Your task to perform on an android device: Go to calendar. Show me events next week Image 0: 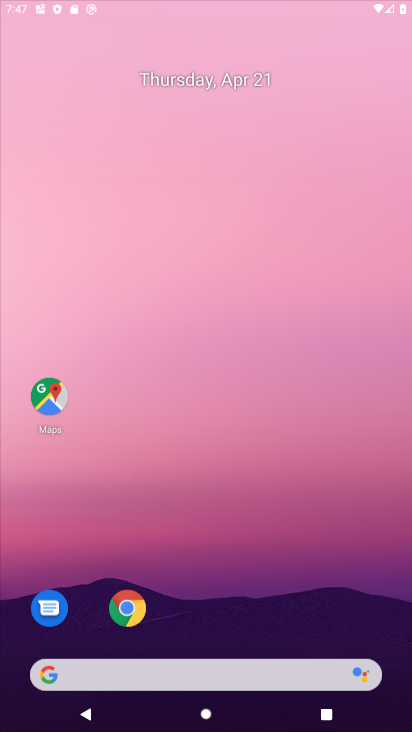
Step 0: drag from (372, 467) to (285, 123)
Your task to perform on an android device: Go to calendar. Show me events next week Image 1: 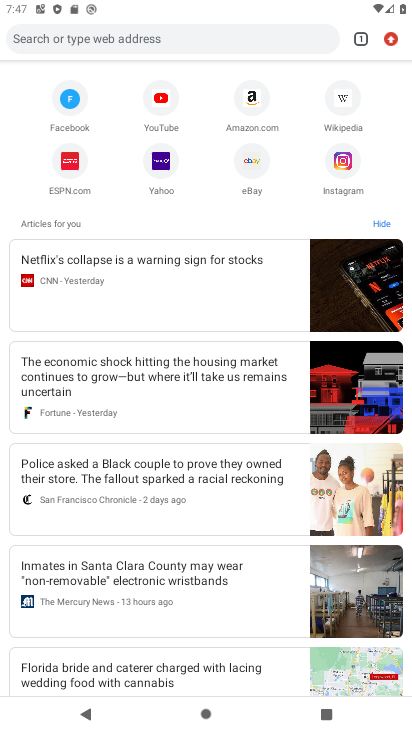
Step 1: press home button
Your task to perform on an android device: Go to calendar. Show me events next week Image 2: 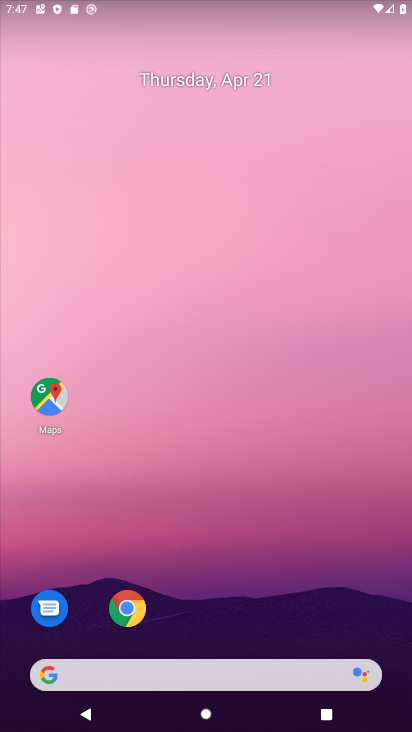
Step 2: click (204, 47)
Your task to perform on an android device: Go to calendar. Show me events next week Image 3: 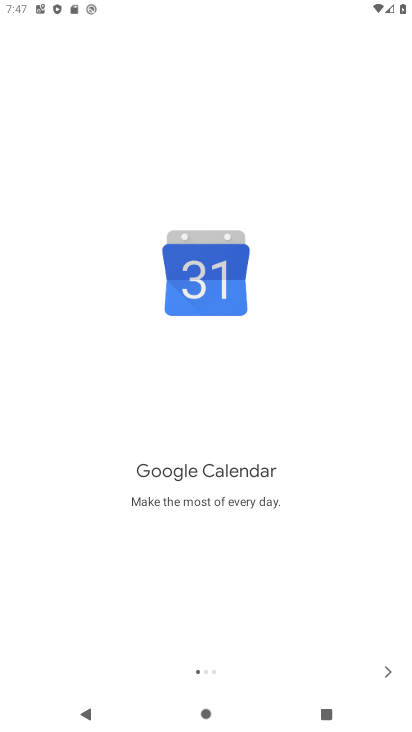
Step 3: click (385, 666)
Your task to perform on an android device: Go to calendar. Show me events next week Image 4: 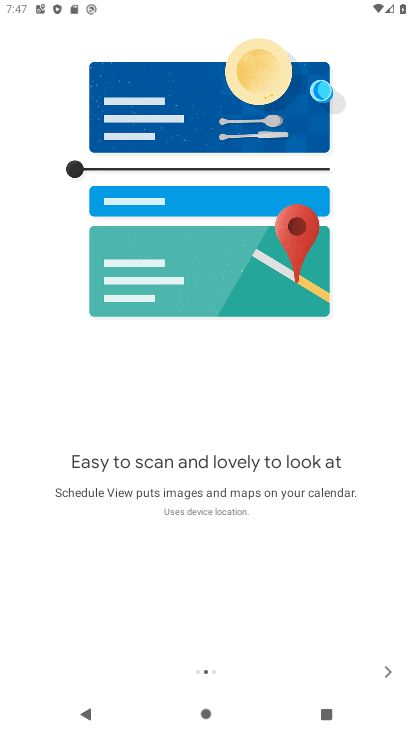
Step 4: click (385, 666)
Your task to perform on an android device: Go to calendar. Show me events next week Image 5: 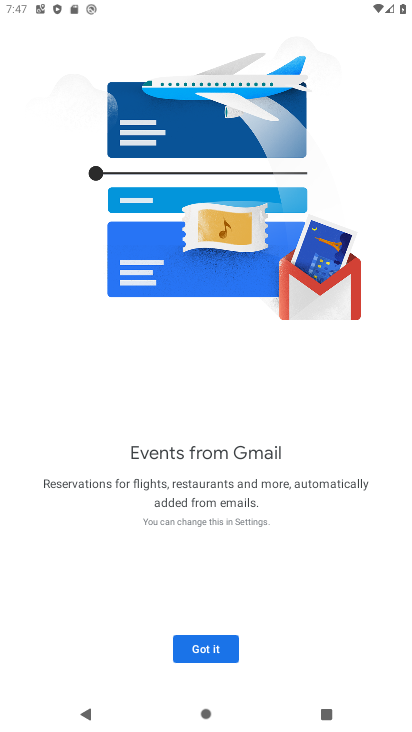
Step 5: click (383, 668)
Your task to perform on an android device: Go to calendar. Show me events next week Image 6: 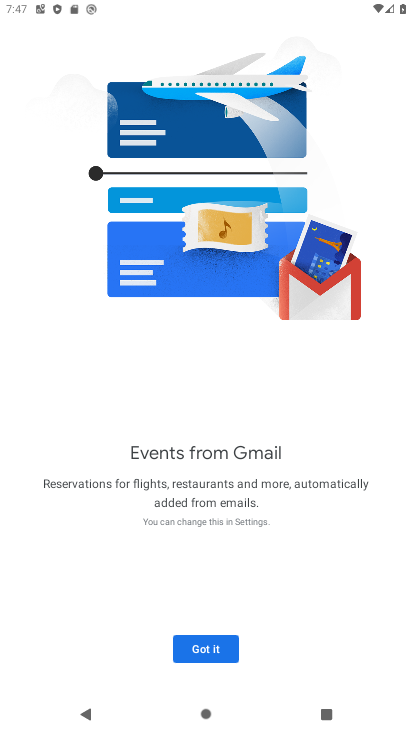
Step 6: click (212, 637)
Your task to perform on an android device: Go to calendar. Show me events next week Image 7: 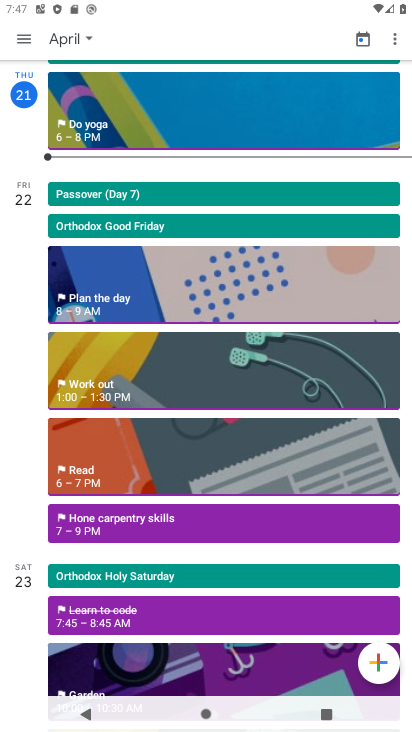
Step 7: click (21, 35)
Your task to perform on an android device: Go to calendar. Show me events next week Image 8: 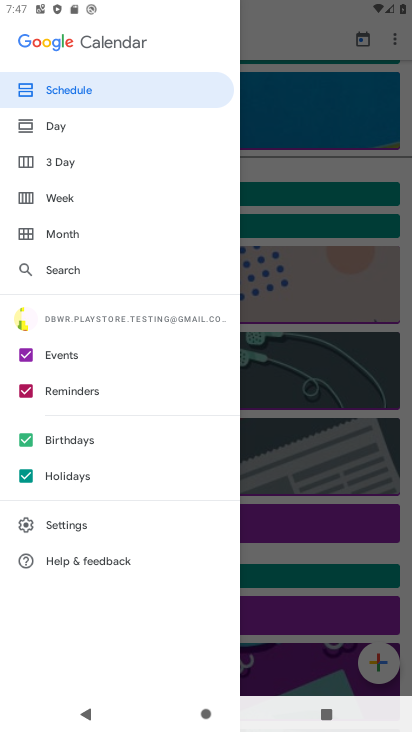
Step 8: click (48, 382)
Your task to perform on an android device: Go to calendar. Show me events next week Image 9: 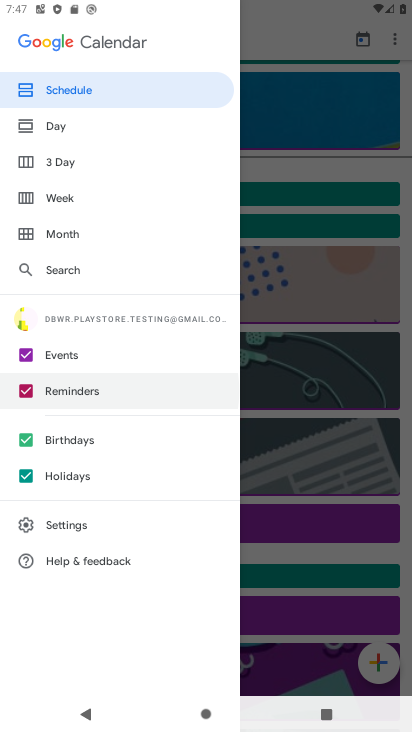
Step 9: click (47, 442)
Your task to perform on an android device: Go to calendar. Show me events next week Image 10: 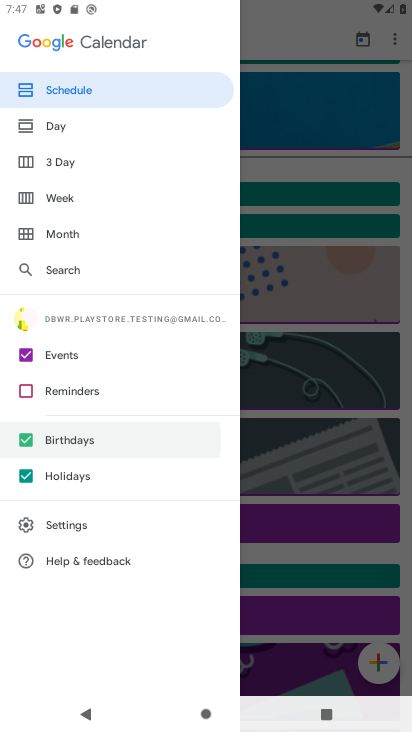
Step 10: click (44, 478)
Your task to perform on an android device: Go to calendar. Show me events next week Image 11: 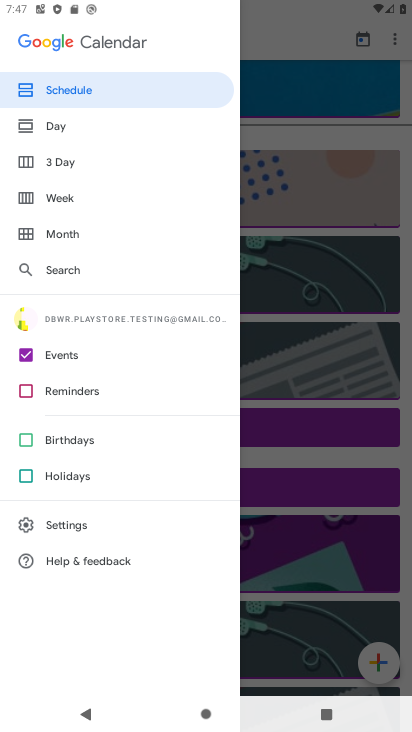
Step 11: click (50, 202)
Your task to perform on an android device: Go to calendar. Show me events next week Image 12: 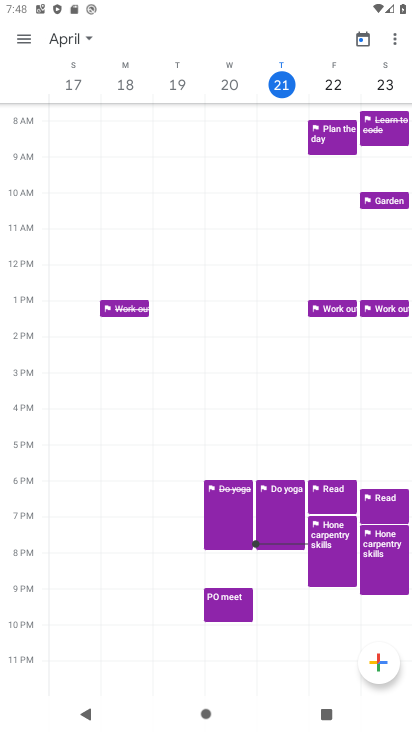
Step 12: task complete